Your task to perform on an android device: all mails in gmail Image 0: 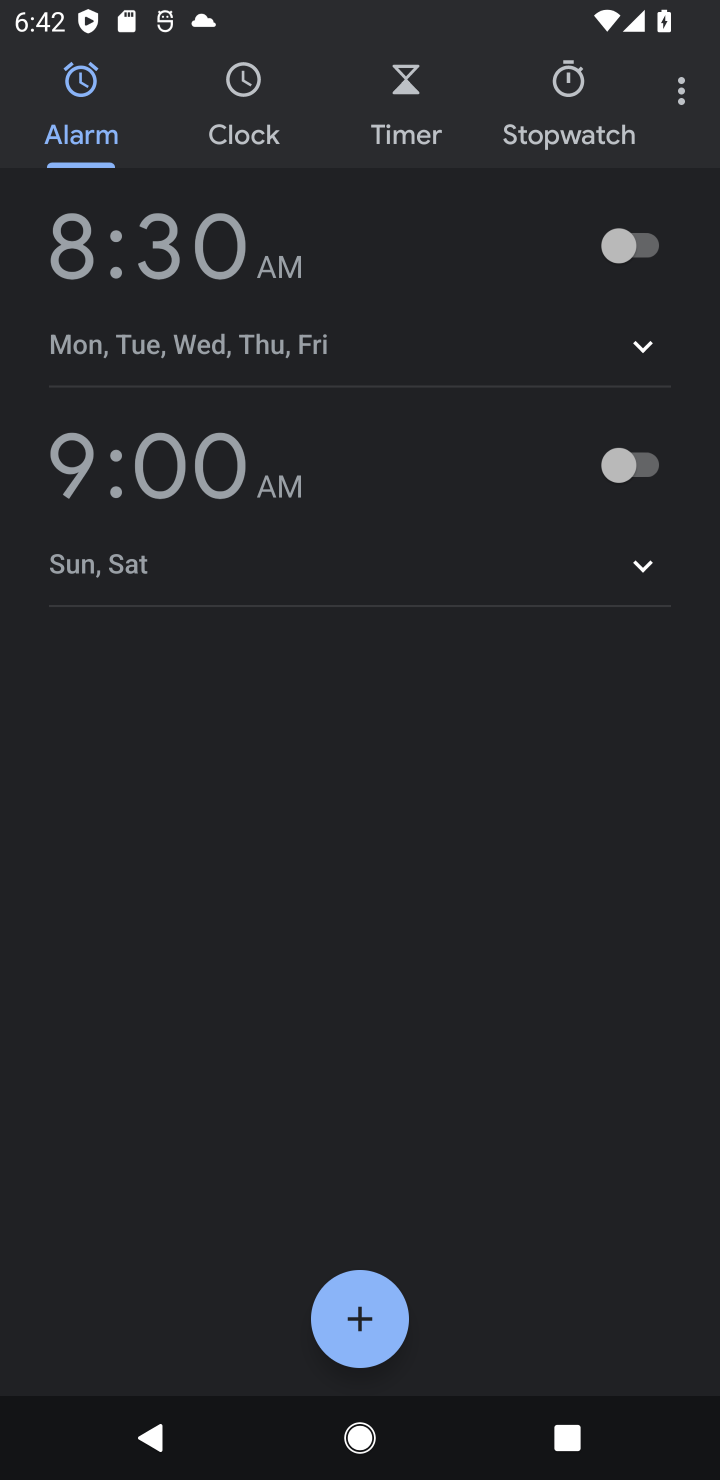
Step 0: press home button
Your task to perform on an android device: all mails in gmail Image 1: 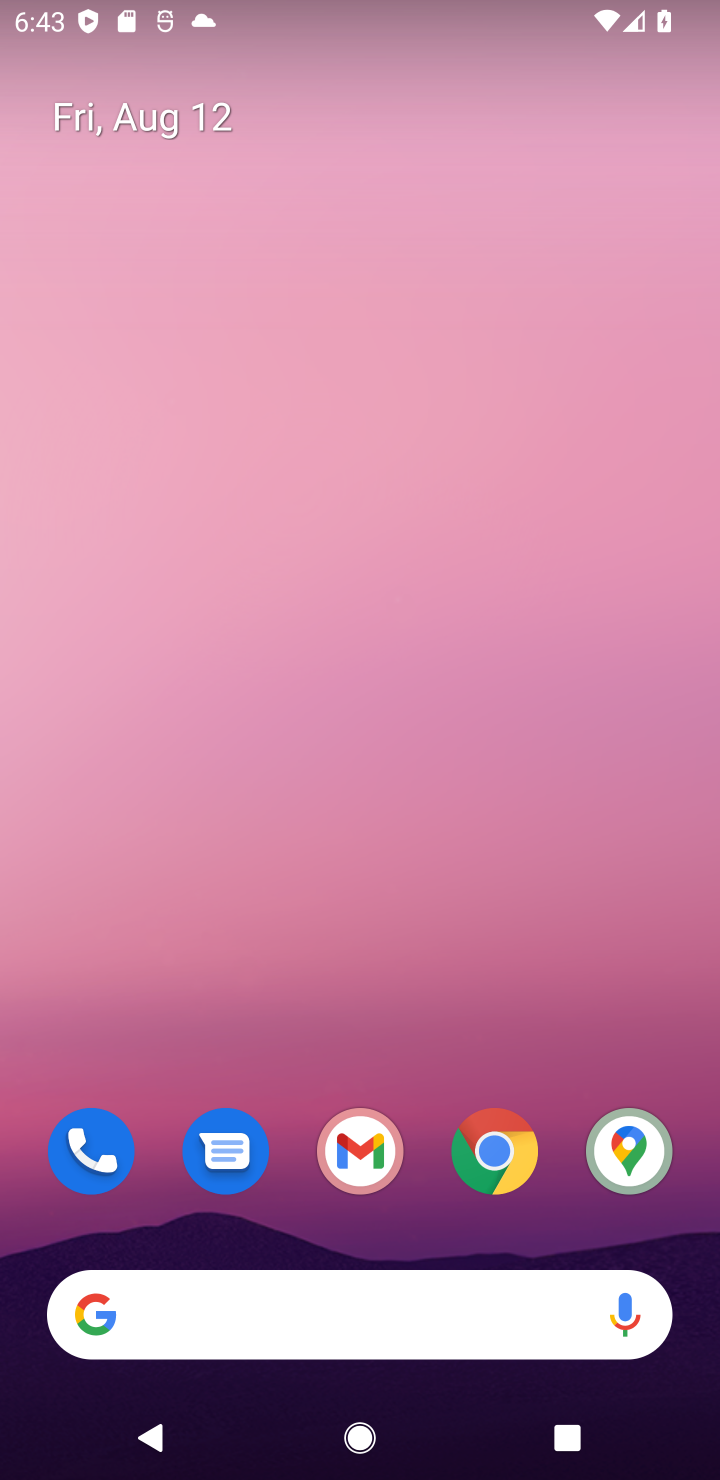
Step 1: drag from (439, 999) to (489, 130)
Your task to perform on an android device: all mails in gmail Image 2: 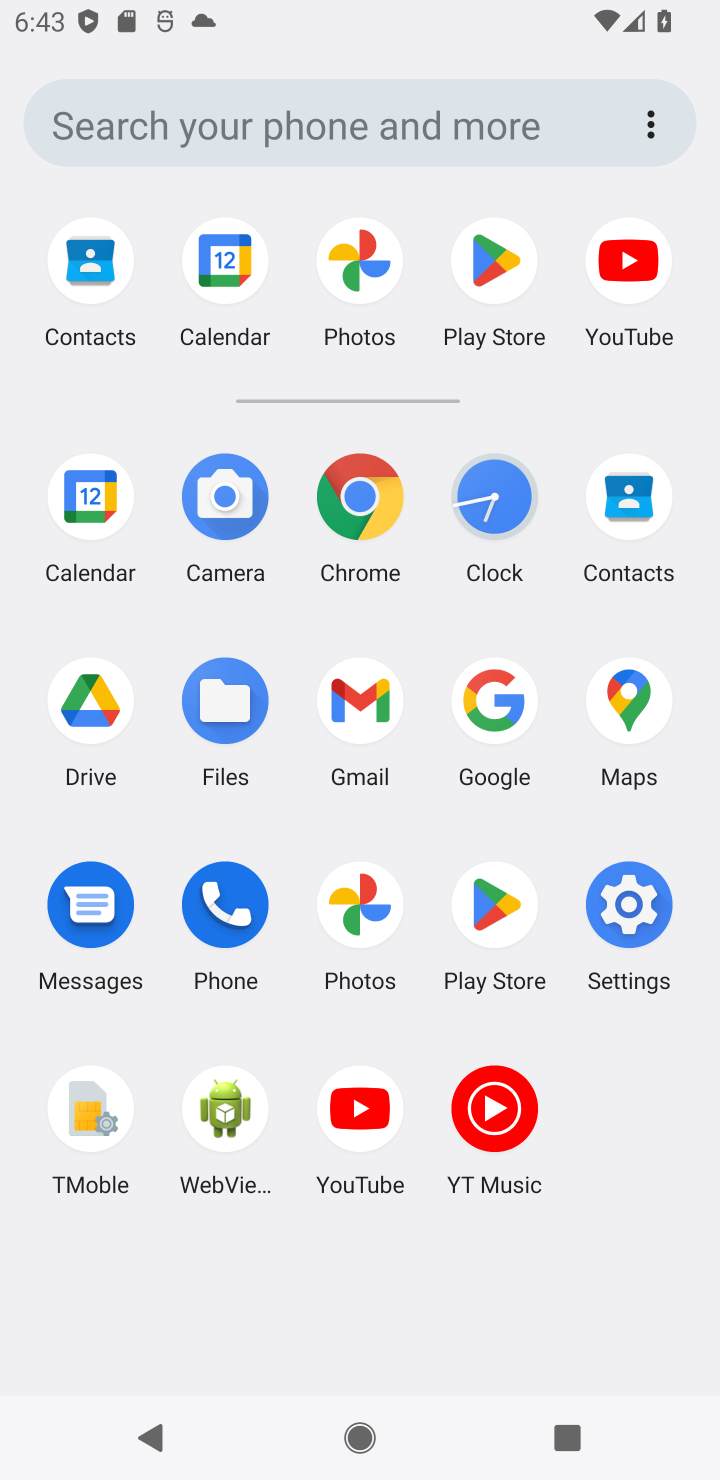
Step 2: click (368, 715)
Your task to perform on an android device: all mails in gmail Image 3: 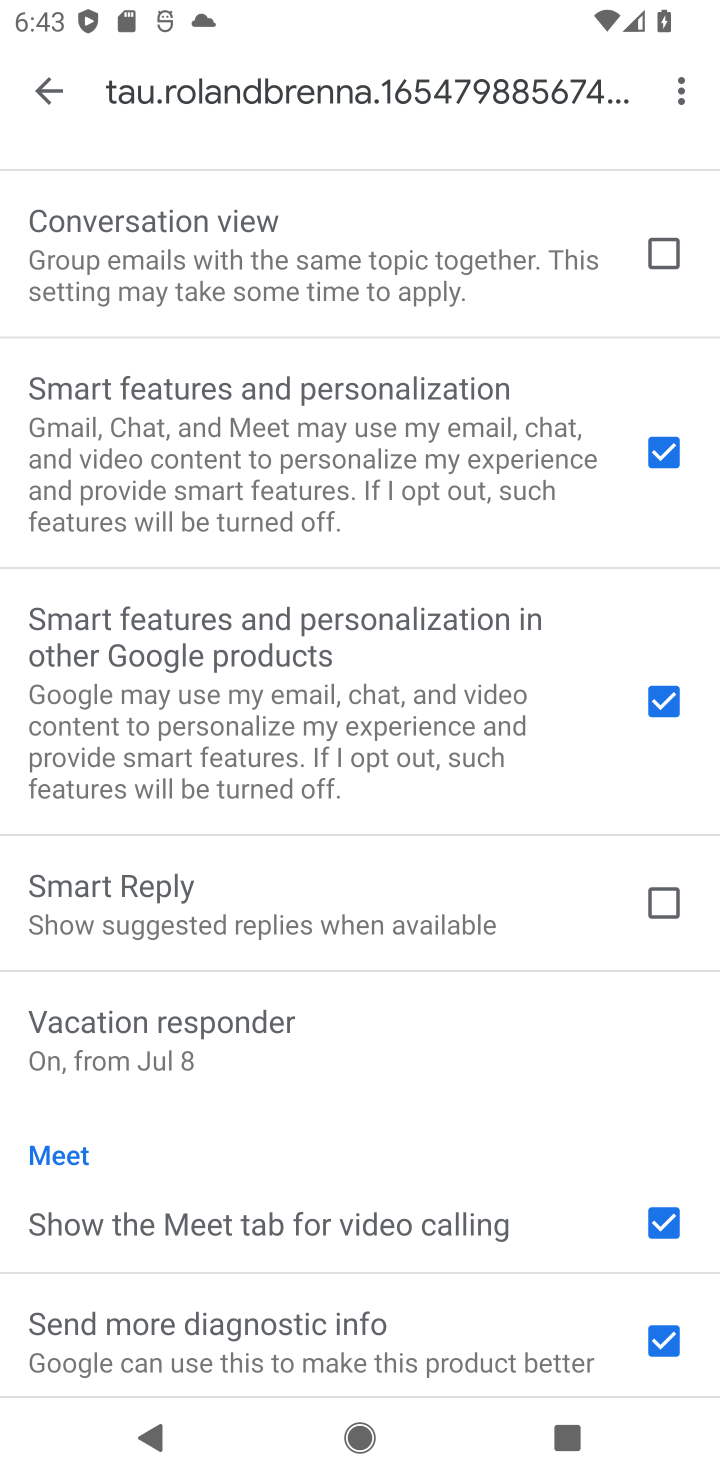
Step 3: press back button
Your task to perform on an android device: all mails in gmail Image 4: 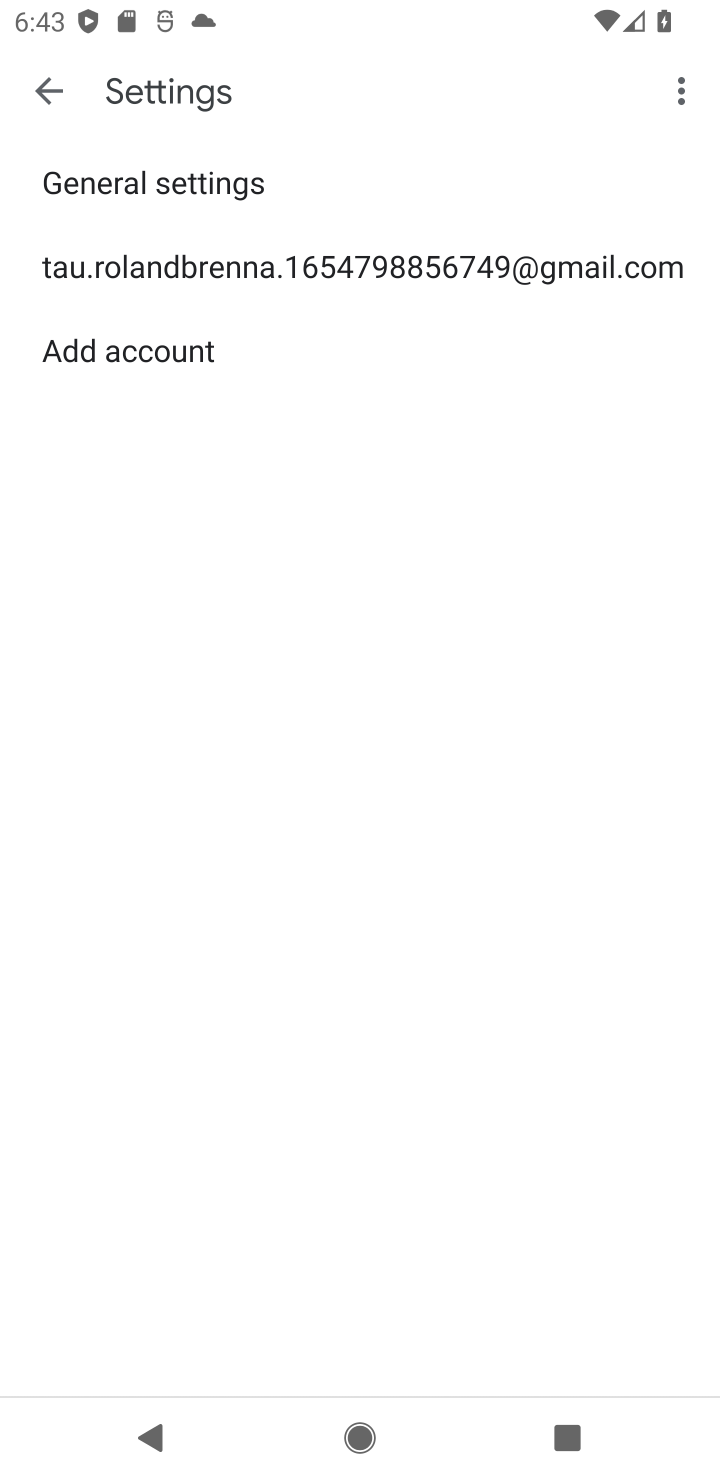
Step 4: click (451, 268)
Your task to perform on an android device: all mails in gmail Image 5: 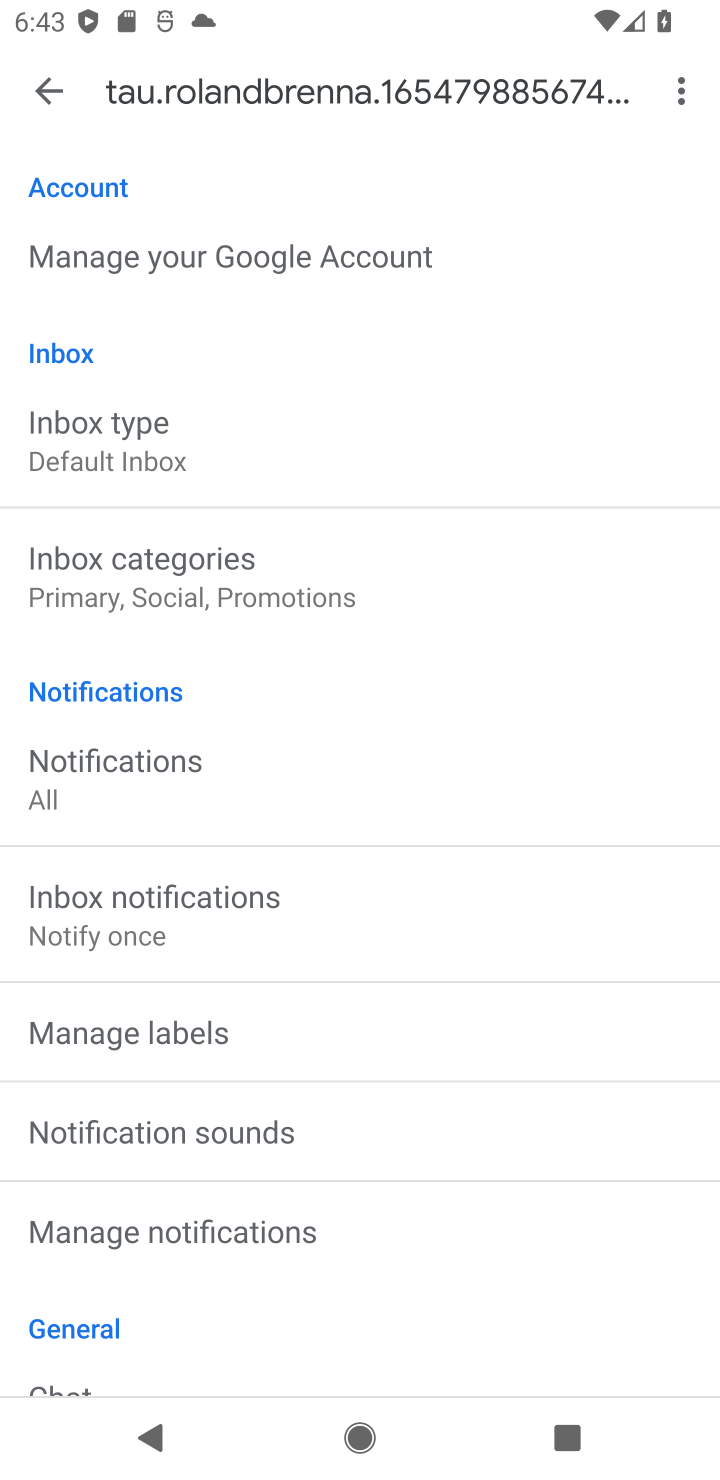
Step 5: press back button
Your task to perform on an android device: all mails in gmail Image 6: 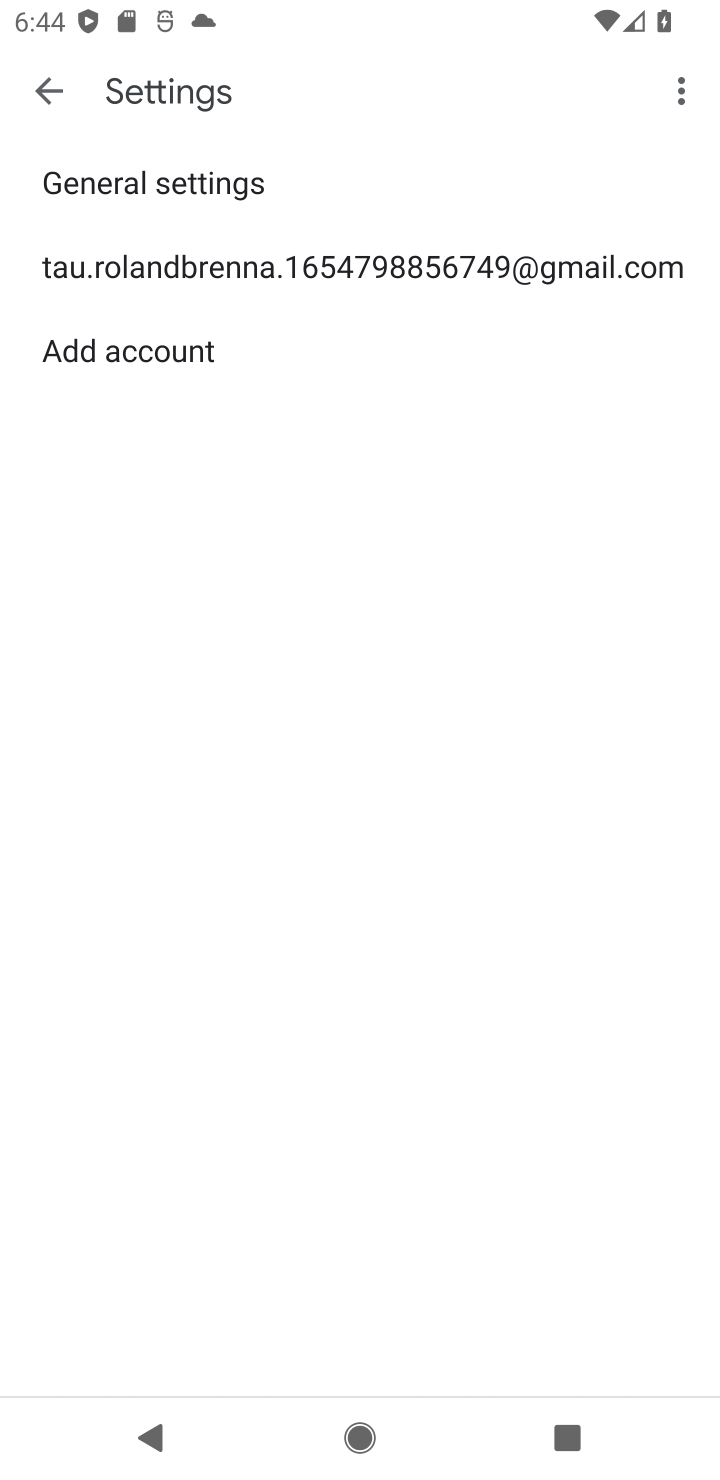
Step 6: press back button
Your task to perform on an android device: all mails in gmail Image 7: 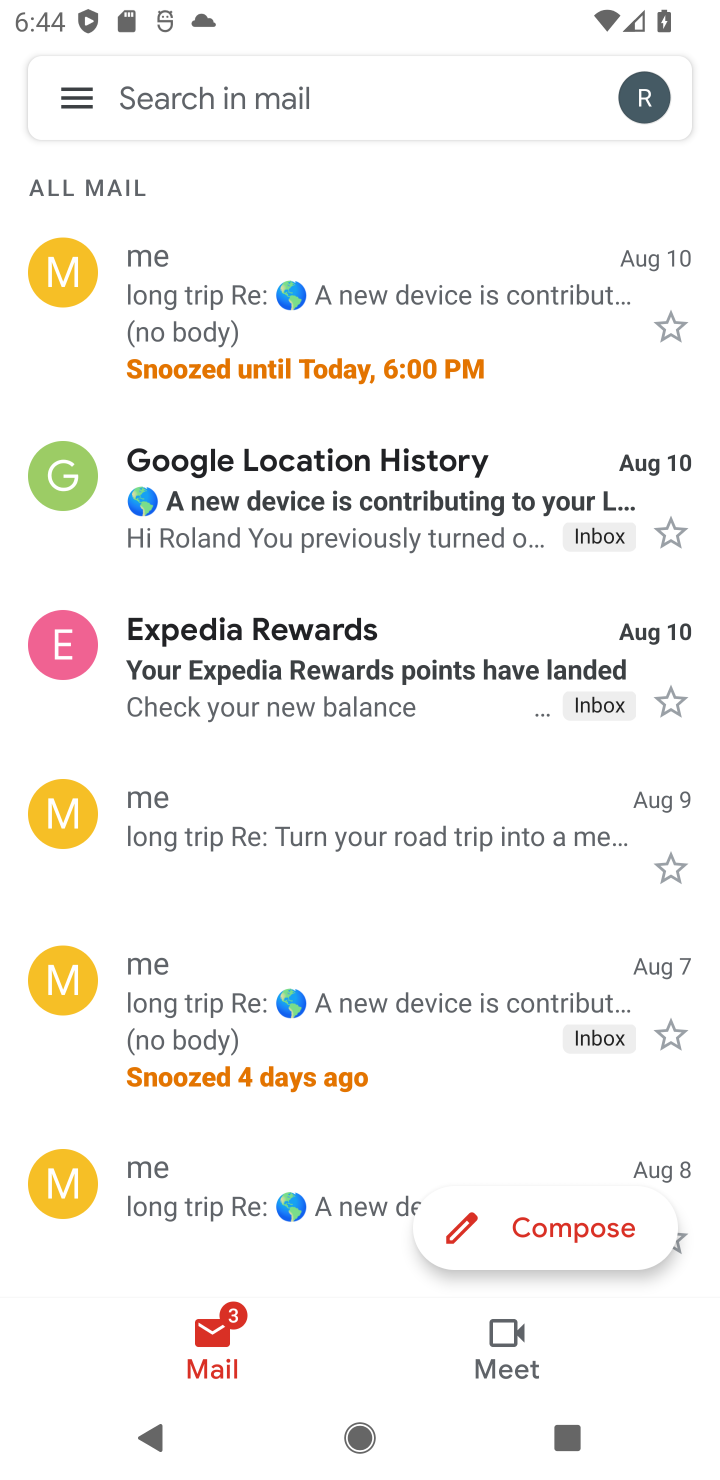
Step 7: click (64, 99)
Your task to perform on an android device: all mails in gmail Image 8: 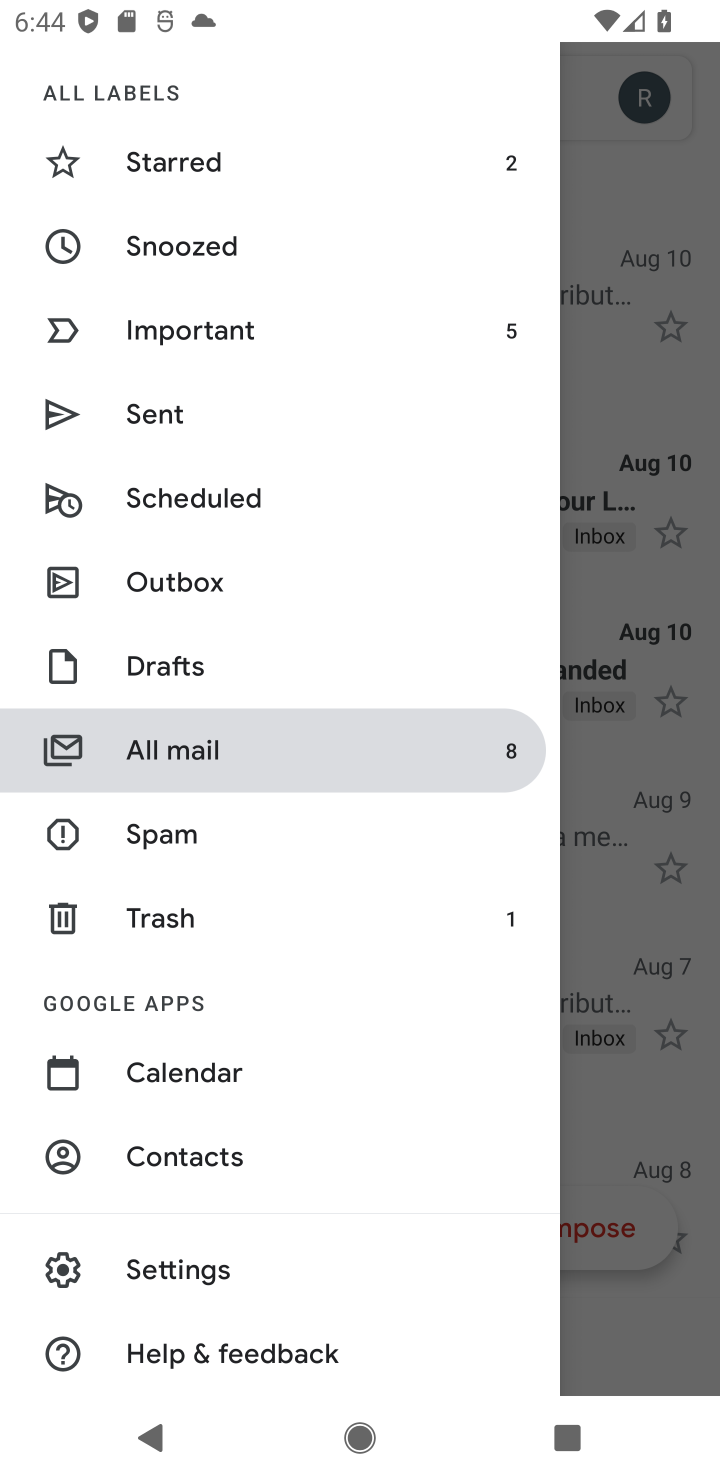
Step 8: click (249, 736)
Your task to perform on an android device: all mails in gmail Image 9: 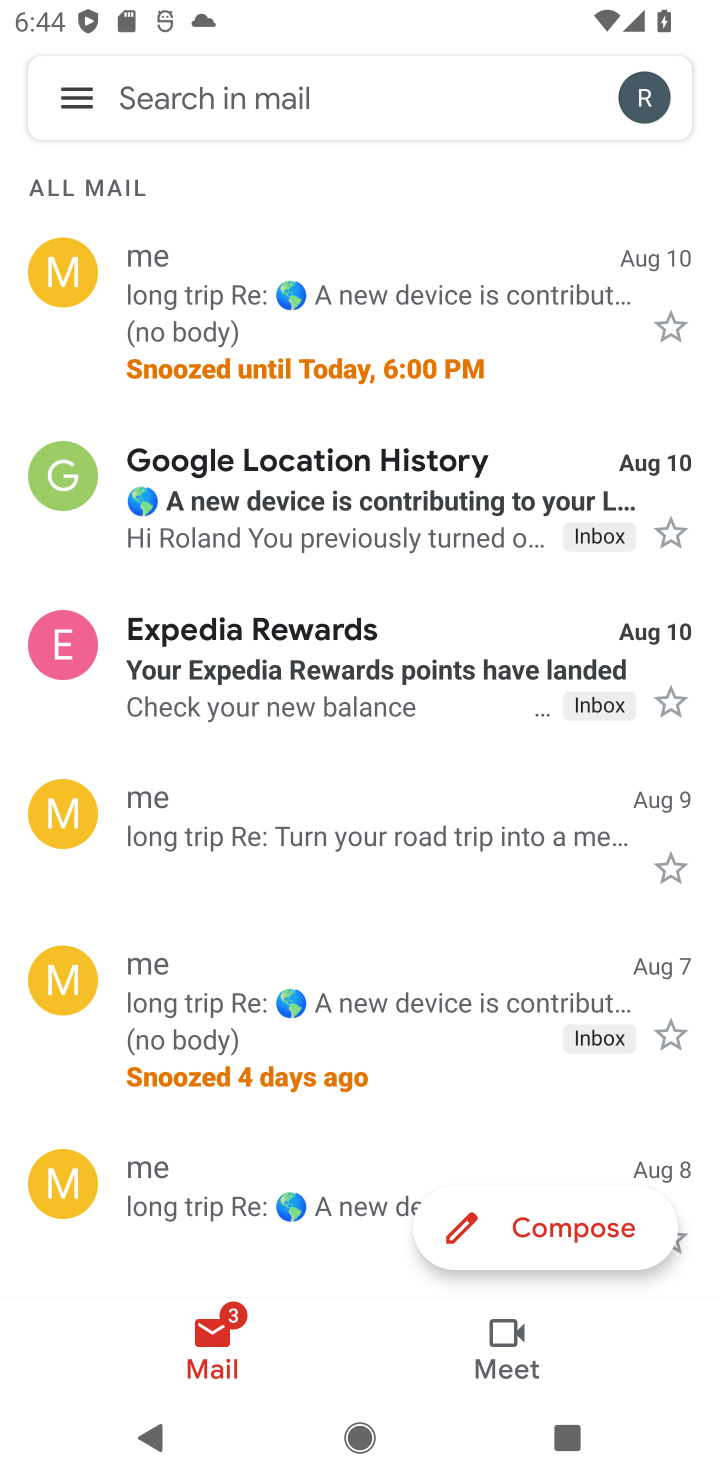
Step 9: task complete